Your task to perform on an android device: change notification settings in the gmail app Image 0: 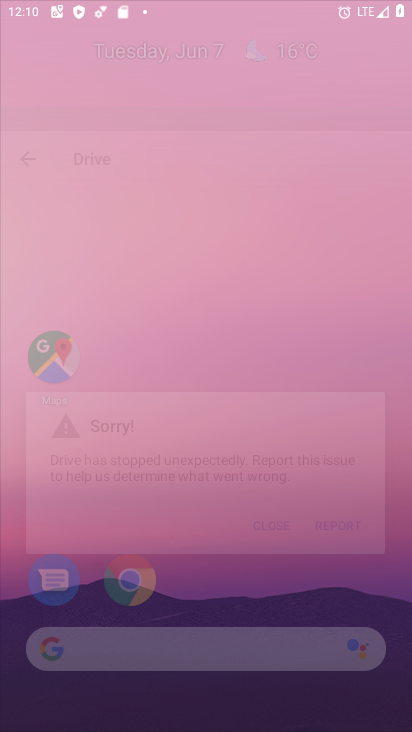
Step 0: press home button
Your task to perform on an android device: change notification settings in the gmail app Image 1: 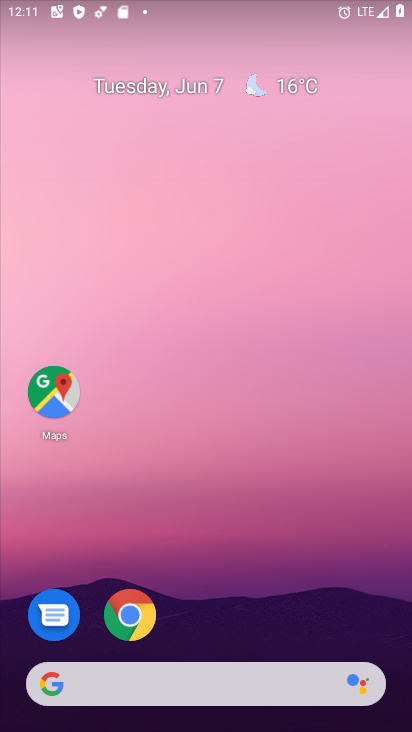
Step 1: drag from (202, 636) to (248, 72)
Your task to perform on an android device: change notification settings in the gmail app Image 2: 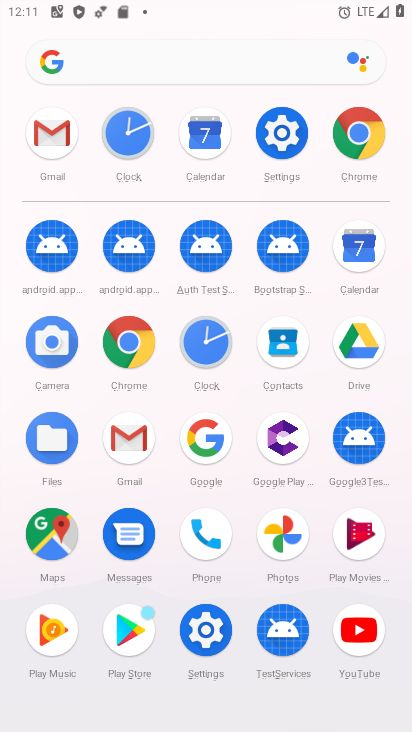
Step 2: click (125, 429)
Your task to perform on an android device: change notification settings in the gmail app Image 3: 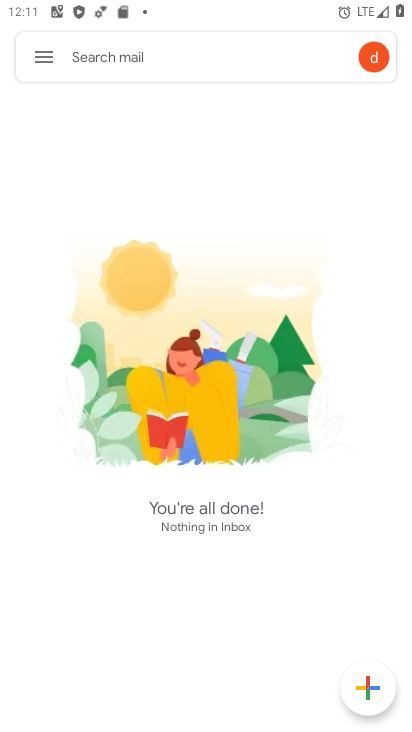
Step 3: click (46, 54)
Your task to perform on an android device: change notification settings in the gmail app Image 4: 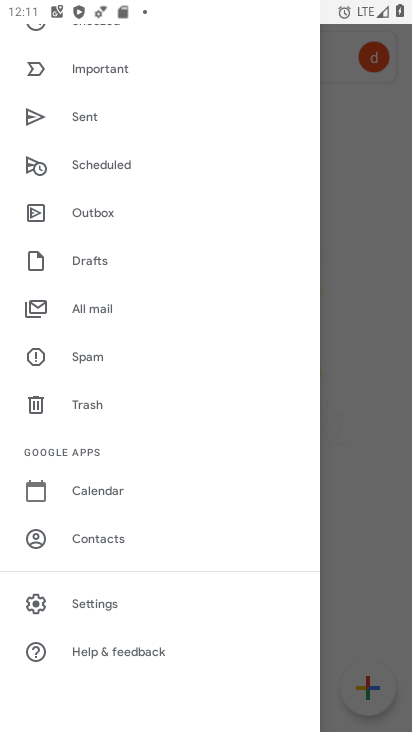
Step 4: click (123, 590)
Your task to perform on an android device: change notification settings in the gmail app Image 5: 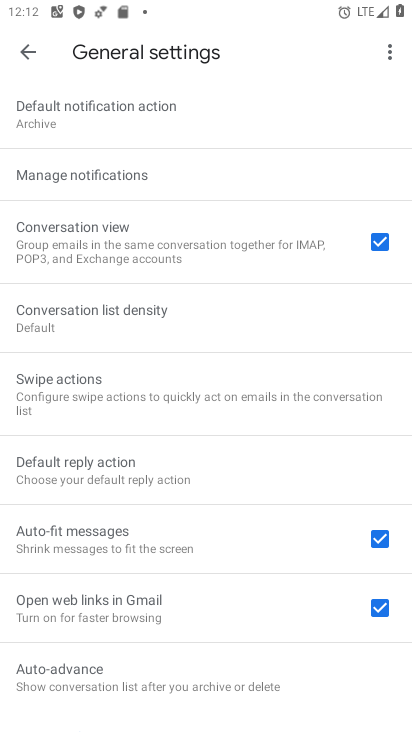
Step 5: click (161, 165)
Your task to perform on an android device: change notification settings in the gmail app Image 6: 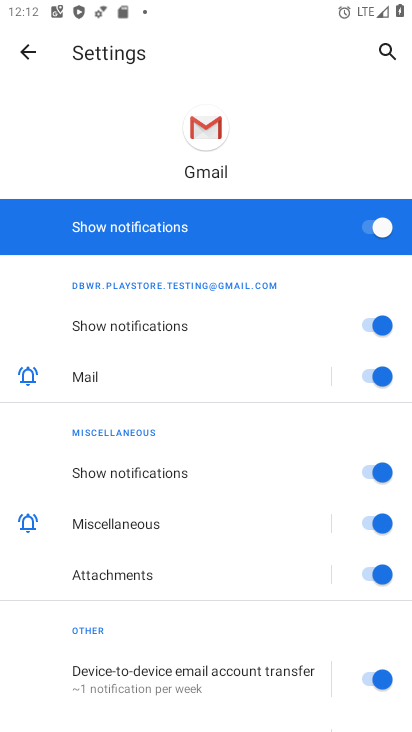
Step 6: click (372, 221)
Your task to perform on an android device: change notification settings in the gmail app Image 7: 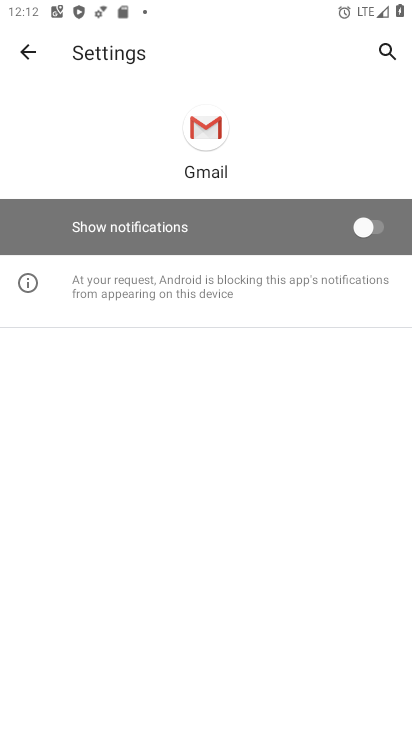
Step 7: task complete